Your task to perform on an android device: see creations saved in the google photos Image 0: 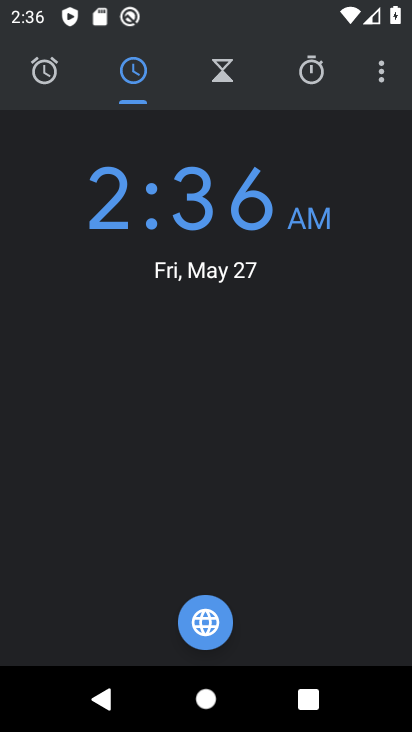
Step 0: press home button
Your task to perform on an android device: see creations saved in the google photos Image 1: 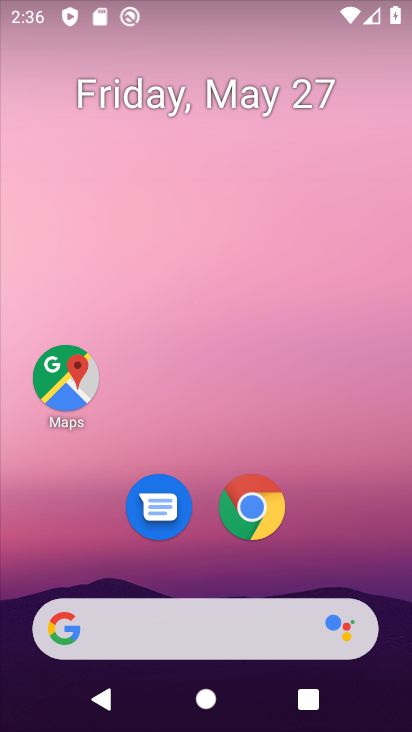
Step 1: drag from (382, 581) to (312, 234)
Your task to perform on an android device: see creations saved in the google photos Image 2: 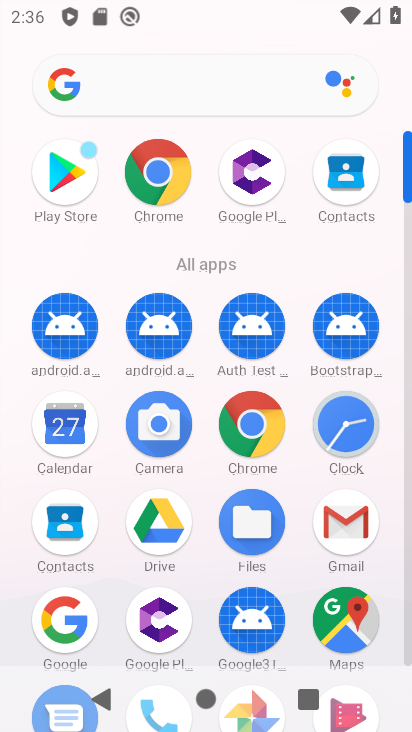
Step 2: drag from (274, 646) to (306, 358)
Your task to perform on an android device: see creations saved in the google photos Image 3: 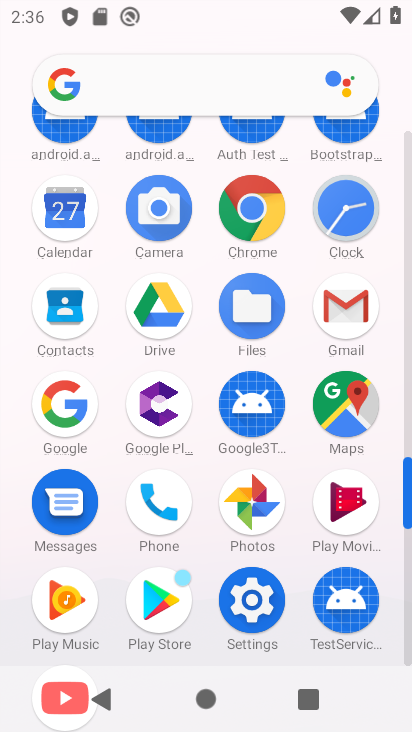
Step 3: click (246, 496)
Your task to perform on an android device: see creations saved in the google photos Image 4: 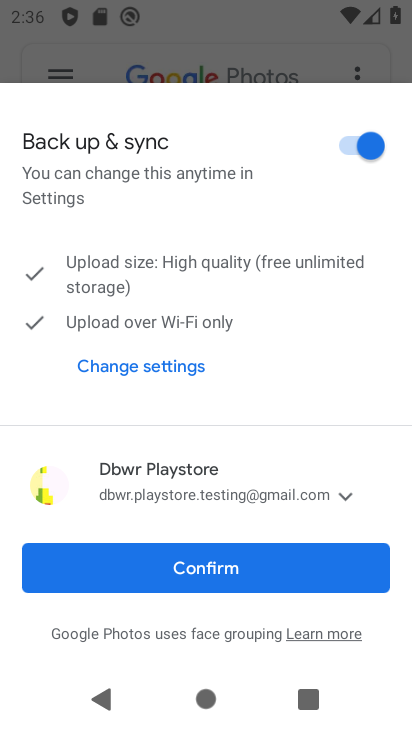
Step 4: click (251, 560)
Your task to perform on an android device: see creations saved in the google photos Image 5: 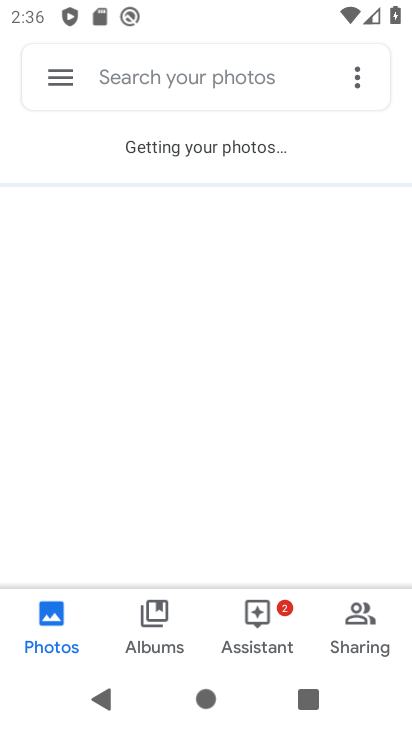
Step 5: click (184, 71)
Your task to perform on an android device: see creations saved in the google photos Image 6: 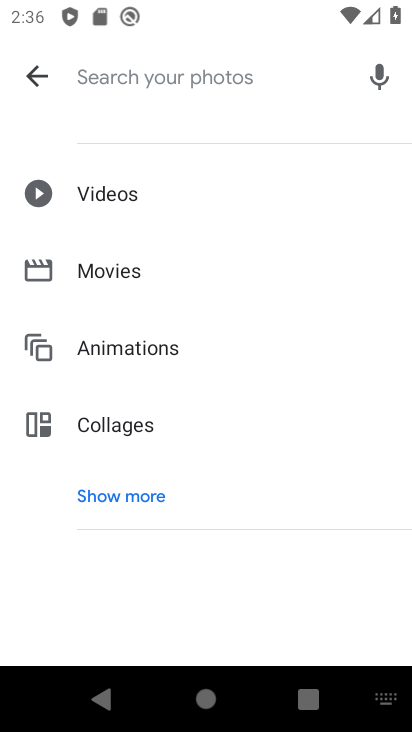
Step 6: type "creations "
Your task to perform on an android device: see creations saved in the google photos Image 7: 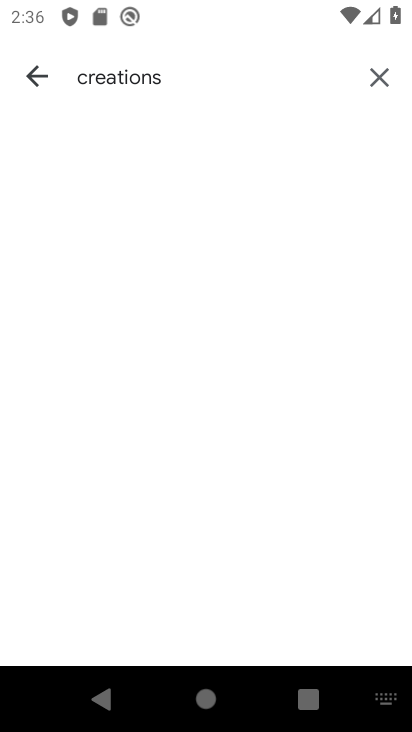
Step 7: task complete